Your task to perform on an android device: open app "Adobe Acrobat Reader" (install if not already installed) Image 0: 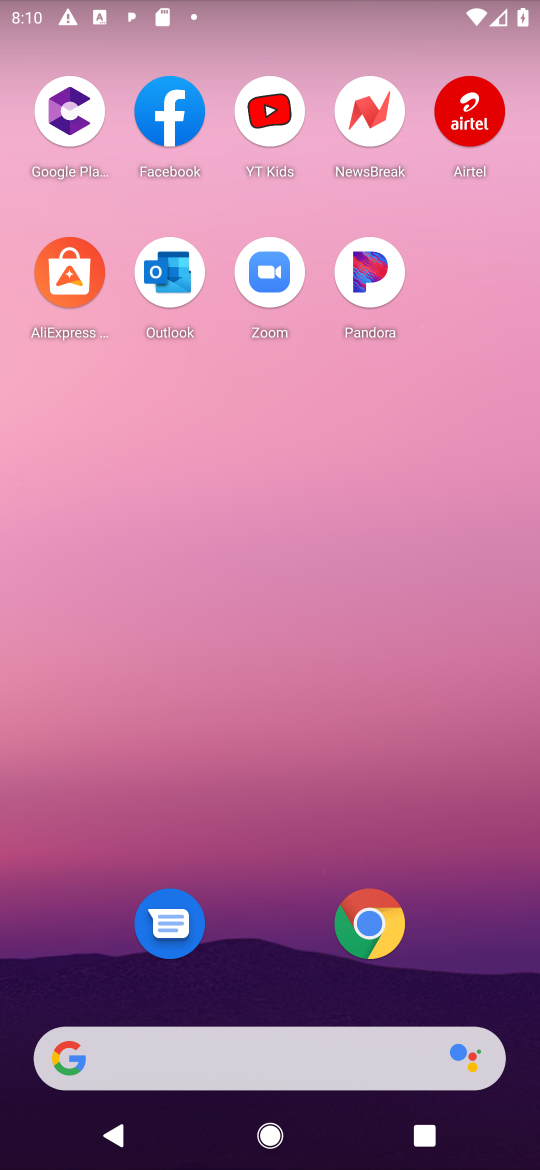
Step 0: press home button
Your task to perform on an android device: open app "Adobe Acrobat Reader" (install if not already installed) Image 1: 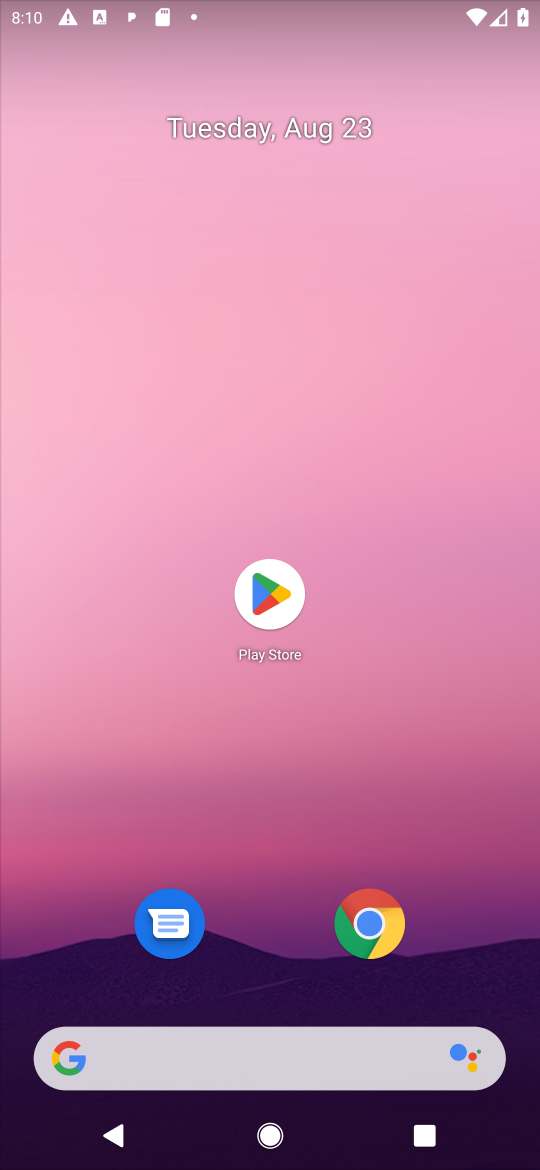
Step 1: click (276, 589)
Your task to perform on an android device: open app "Adobe Acrobat Reader" (install if not already installed) Image 2: 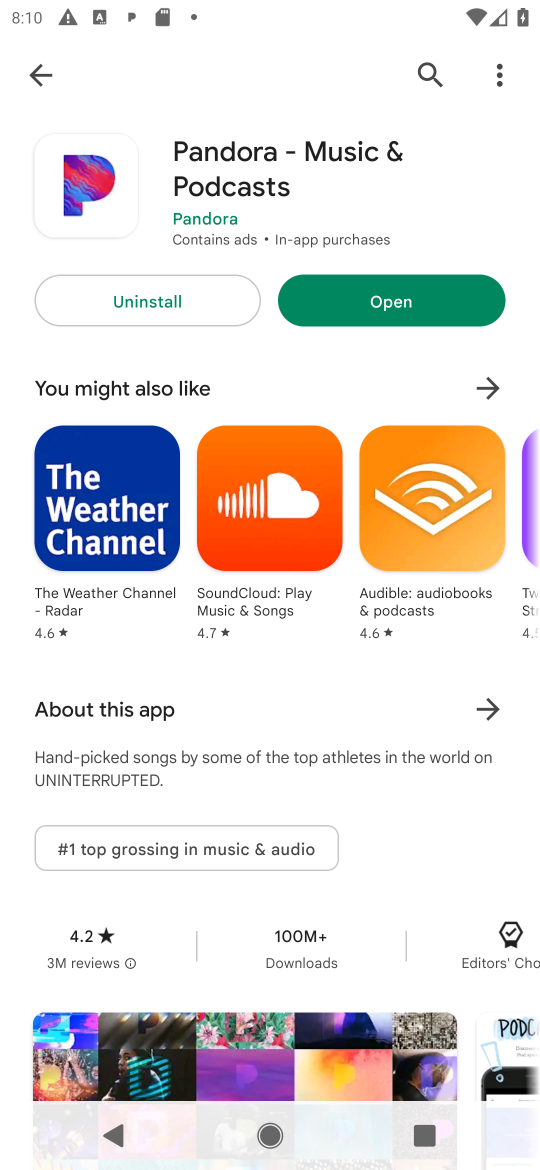
Step 2: click (421, 69)
Your task to perform on an android device: open app "Adobe Acrobat Reader" (install if not already installed) Image 3: 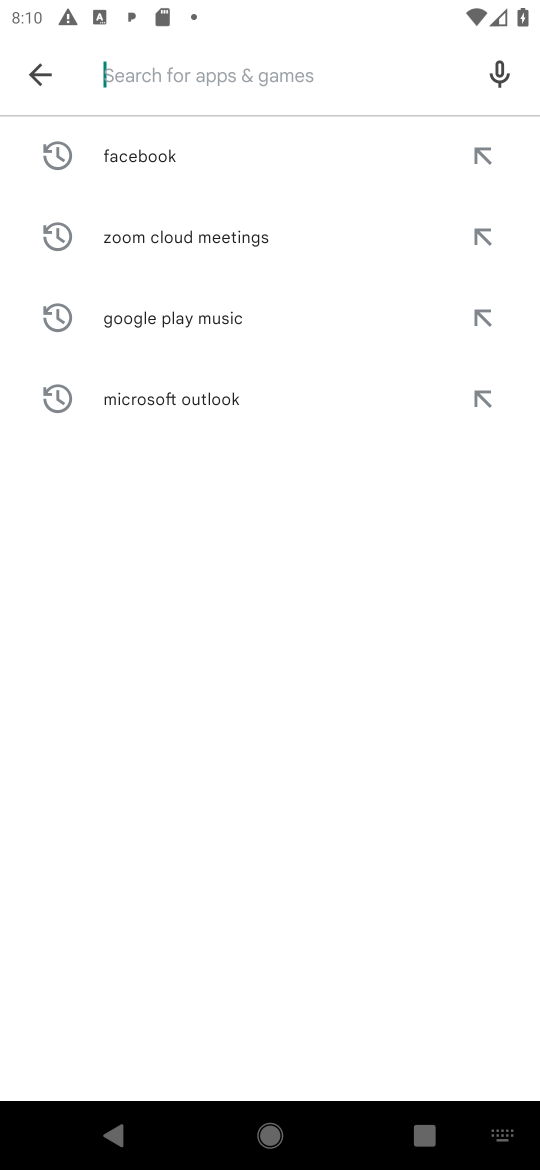
Step 3: type "Adobe Acrobat Reader"
Your task to perform on an android device: open app "Adobe Acrobat Reader" (install if not already installed) Image 4: 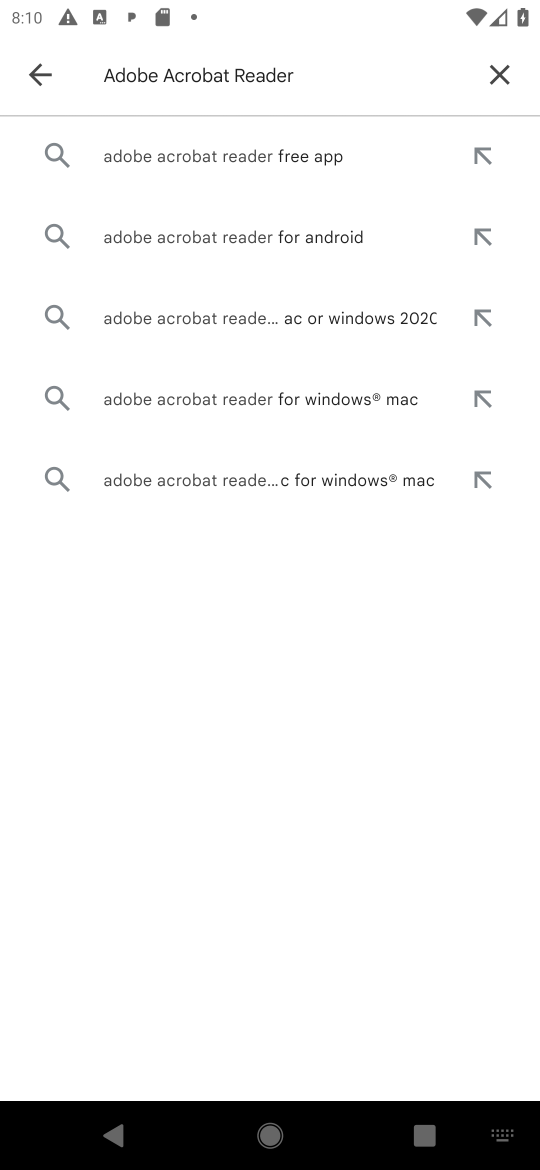
Step 4: click (227, 153)
Your task to perform on an android device: open app "Adobe Acrobat Reader" (install if not already installed) Image 5: 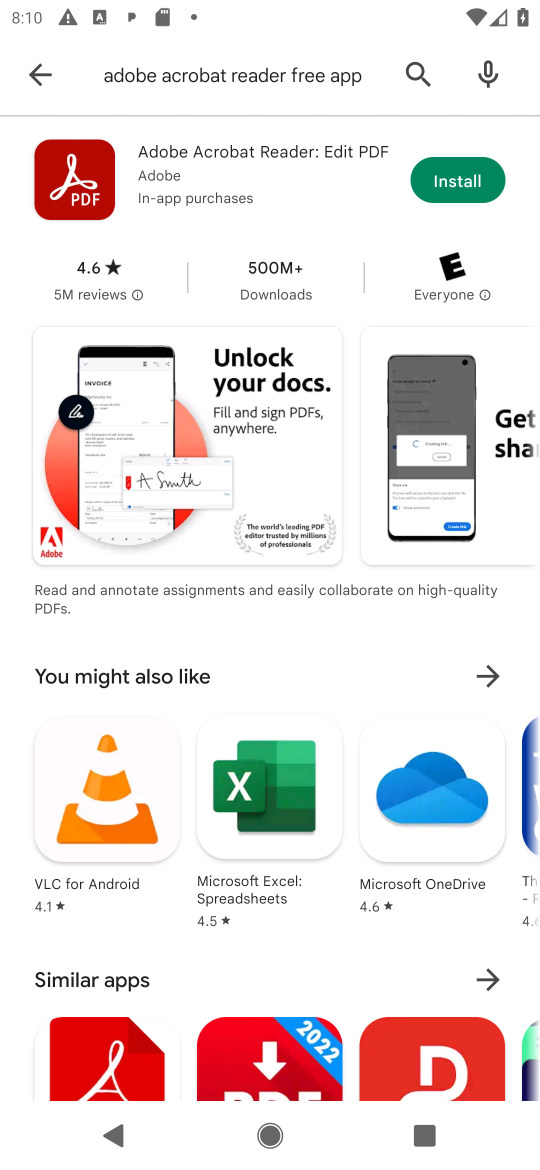
Step 5: click (456, 190)
Your task to perform on an android device: open app "Adobe Acrobat Reader" (install if not already installed) Image 6: 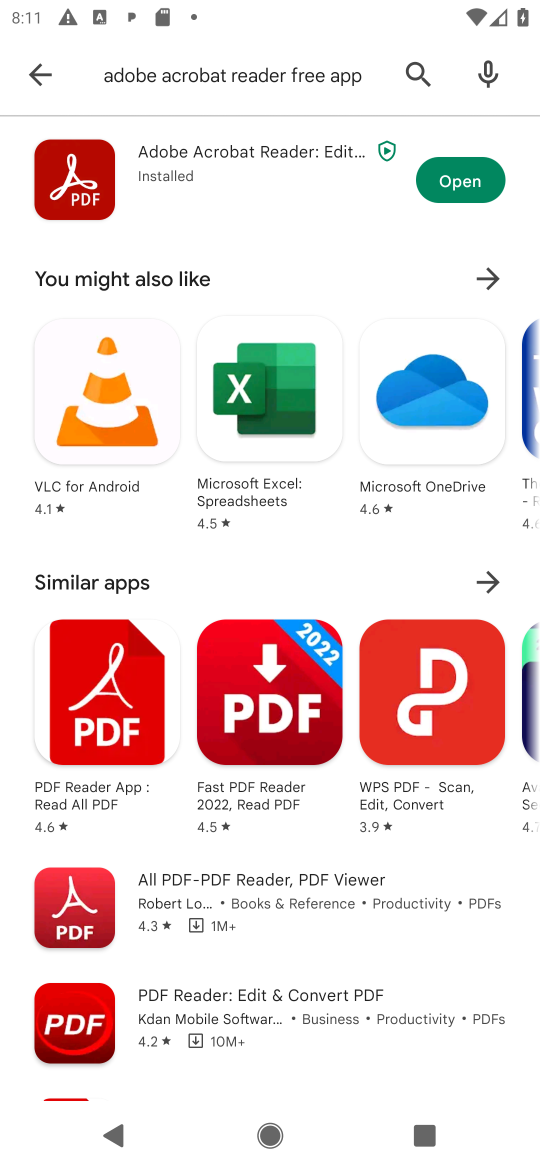
Step 6: click (449, 191)
Your task to perform on an android device: open app "Adobe Acrobat Reader" (install if not already installed) Image 7: 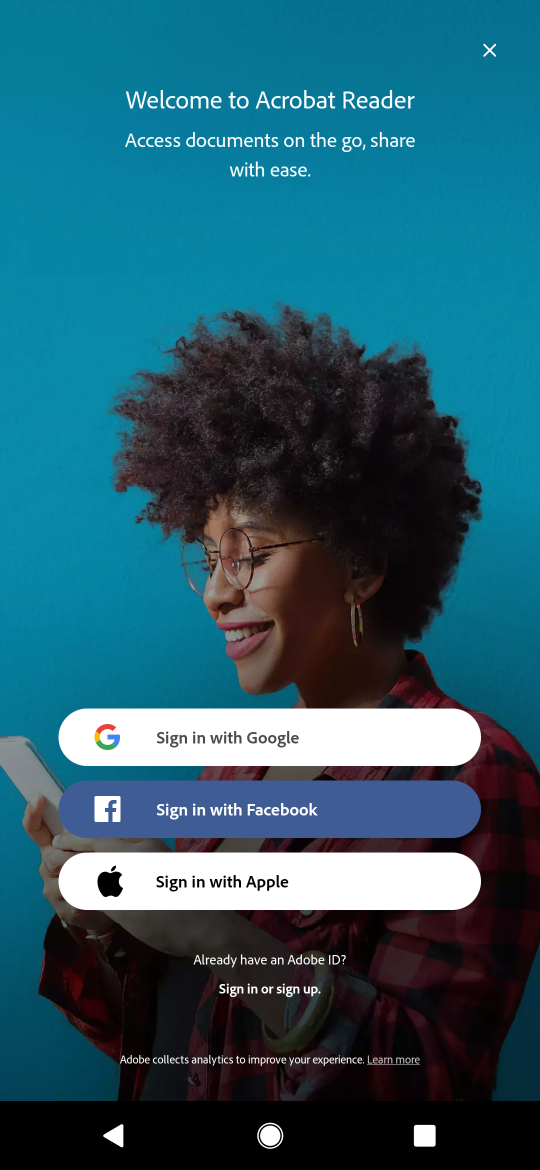
Step 7: task complete